Your task to perform on an android device: Go to eBay Image 0: 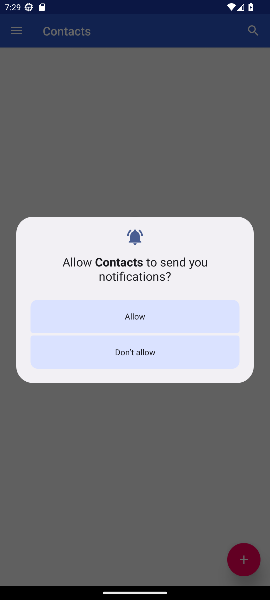
Step 0: press home button
Your task to perform on an android device: Go to eBay Image 1: 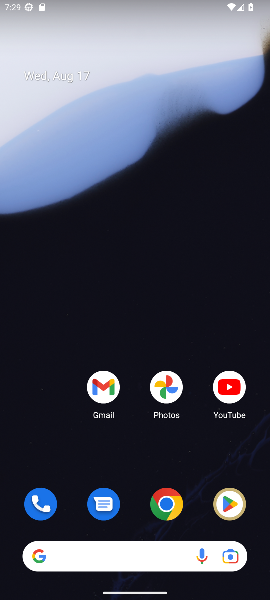
Step 1: drag from (123, 458) to (174, 107)
Your task to perform on an android device: Go to eBay Image 2: 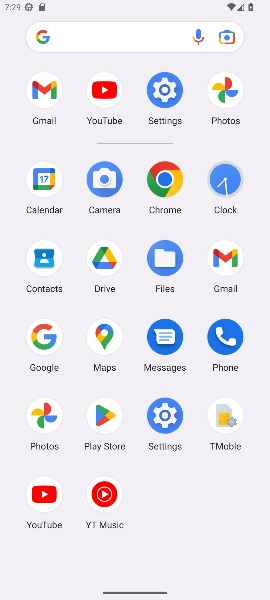
Step 2: click (174, 181)
Your task to perform on an android device: Go to eBay Image 3: 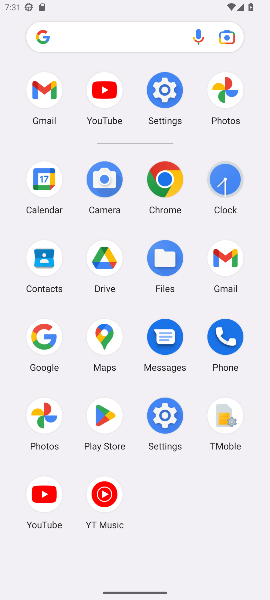
Step 3: click (172, 191)
Your task to perform on an android device: Go to eBay Image 4: 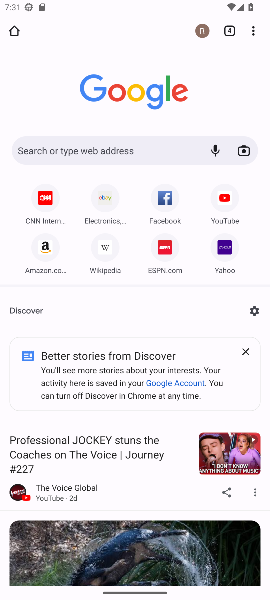
Step 4: click (109, 195)
Your task to perform on an android device: Go to eBay Image 5: 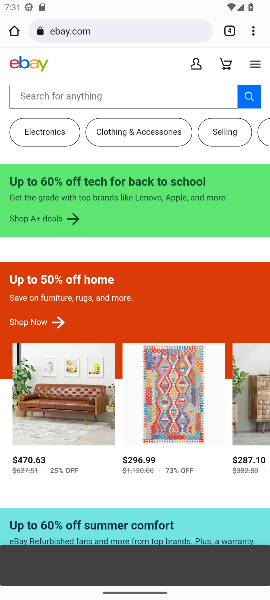
Step 5: task complete